Your task to perform on an android device: Search for hotels in Philadelphia Image 0: 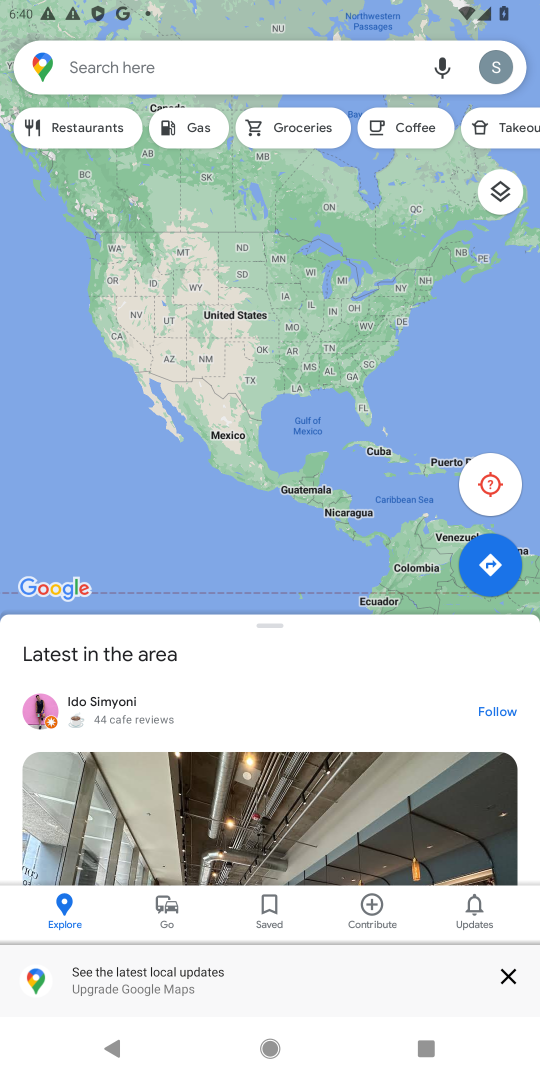
Step 0: press home button
Your task to perform on an android device: Search for hotels in Philadelphia Image 1: 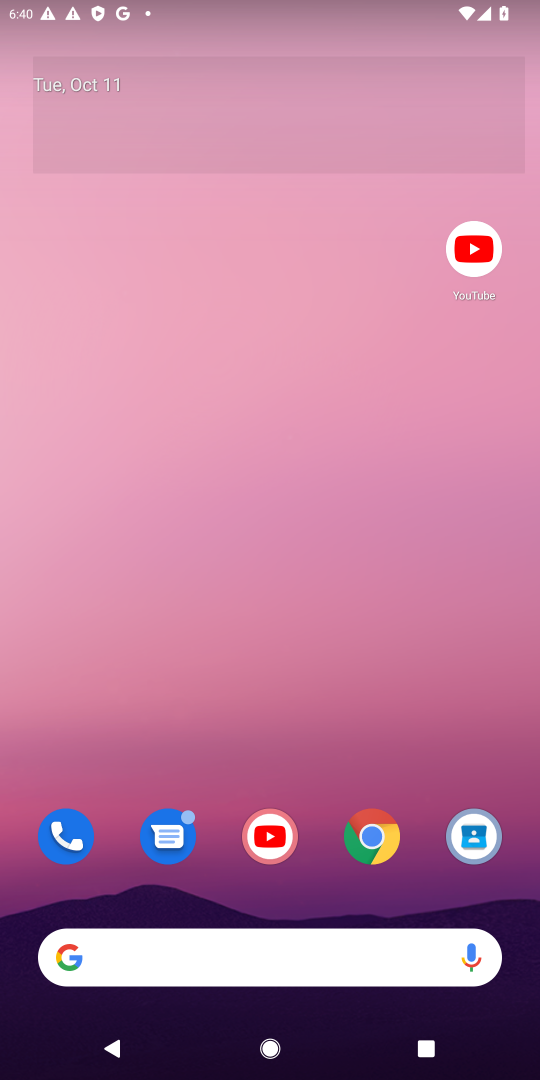
Step 1: click (367, 832)
Your task to perform on an android device: Search for hotels in Philadelphia Image 2: 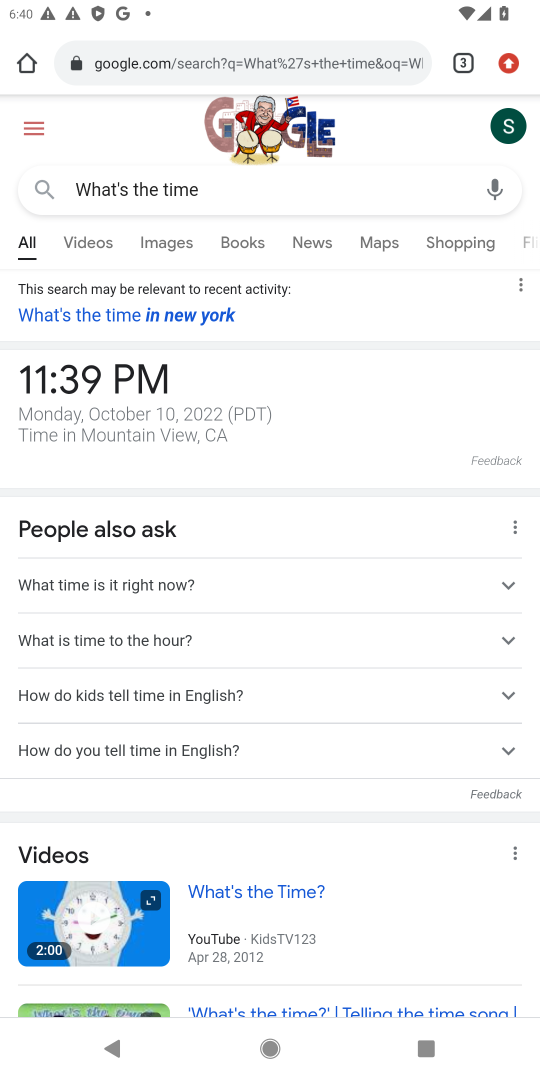
Step 2: click (256, 68)
Your task to perform on an android device: Search for hotels in Philadelphia Image 3: 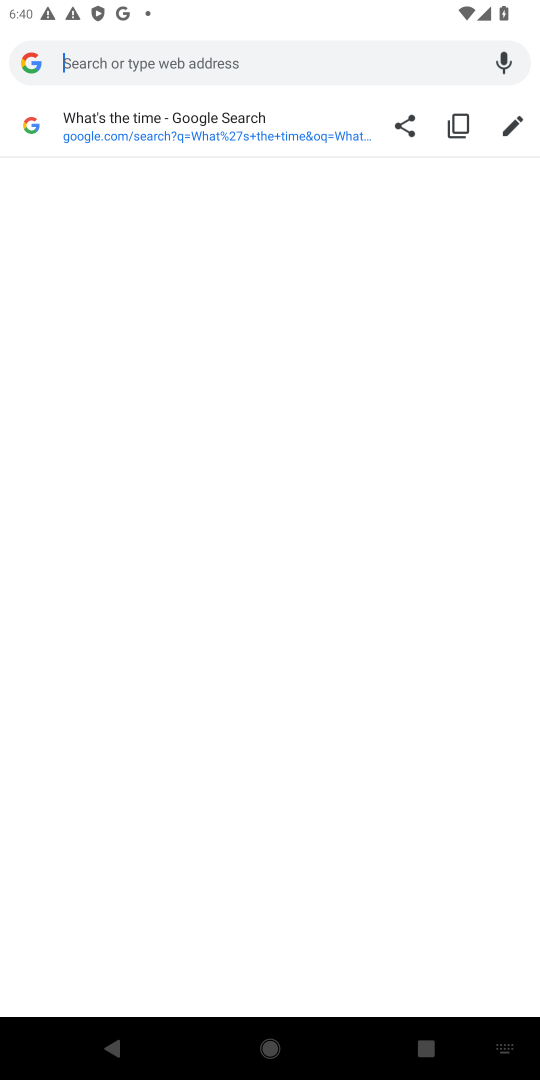
Step 3: type " hotels in Philadelphia"
Your task to perform on an android device: Search for hotels in Philadelphia Image 4: 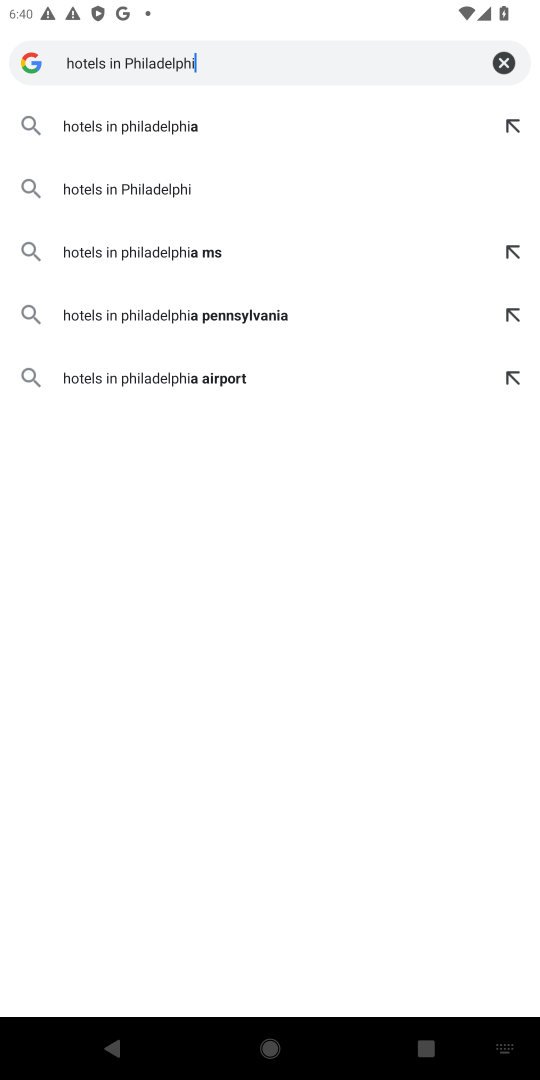
Step 4: press enter
Your task to perform on an android device: Search for hotels in Philadelphia Image 5: 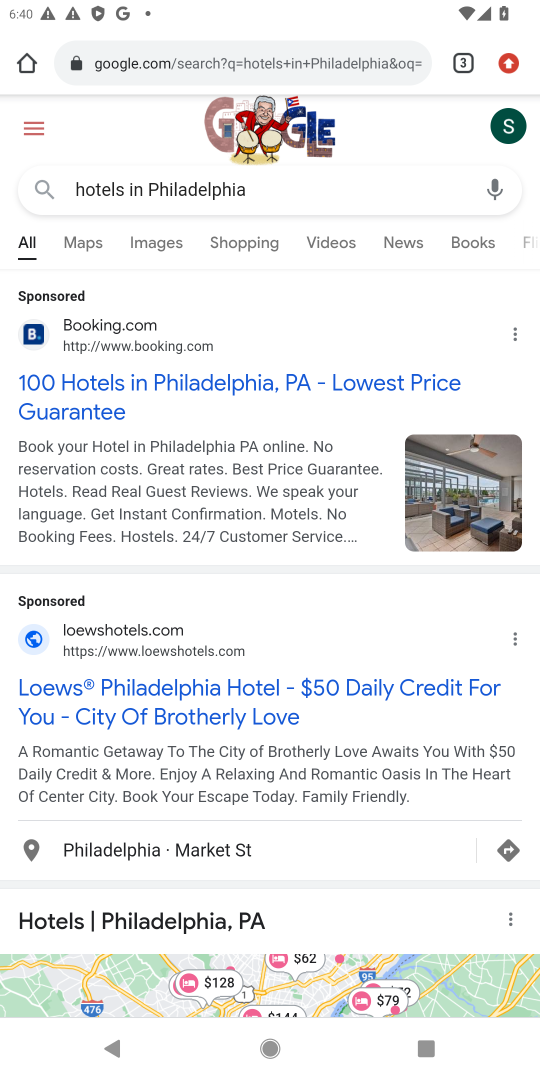
Step 5: drag from (220, 802) to (430, 123)
Your task to perform on an android device: Search for hotels in Philadelphia Image 6: 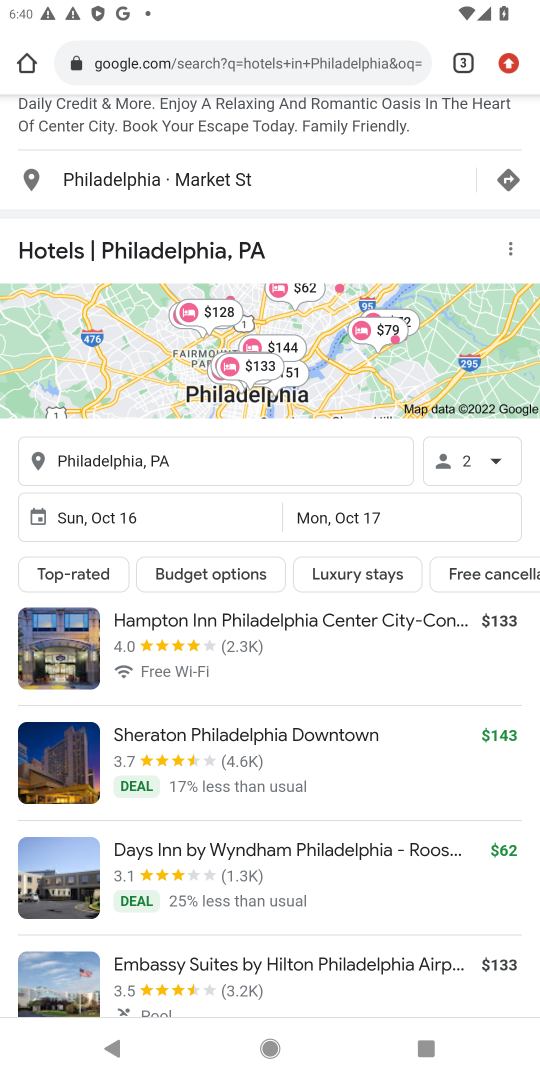
Step 6: drag from (266, 833) to (388, 92)
Your task to perform on an android device: Search for hotels in Philadelphia Image 7: 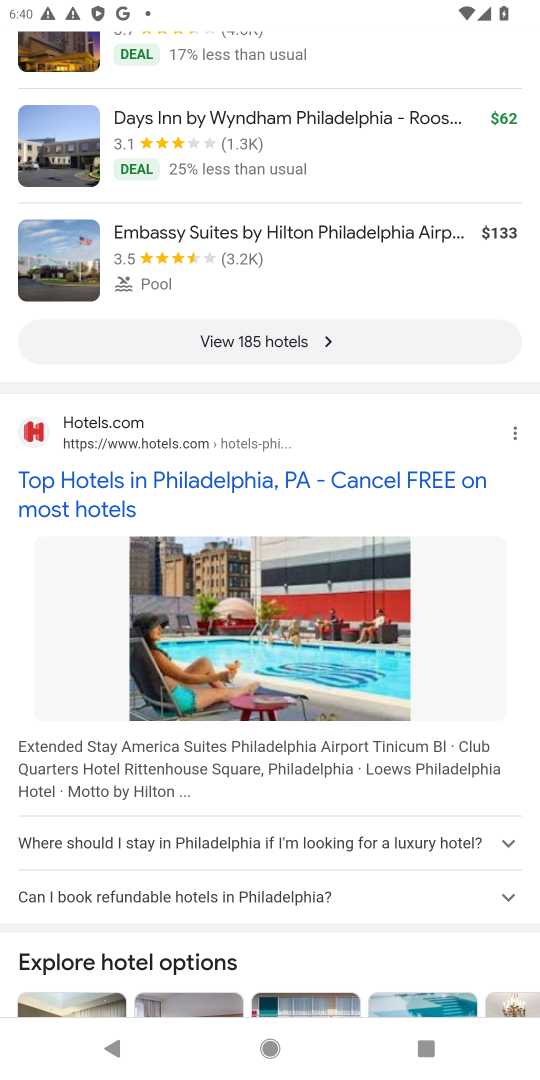
Step 7: click (282, 336)
Your task to perform on an android device: Search for hotels in Philadelphia Image 8: 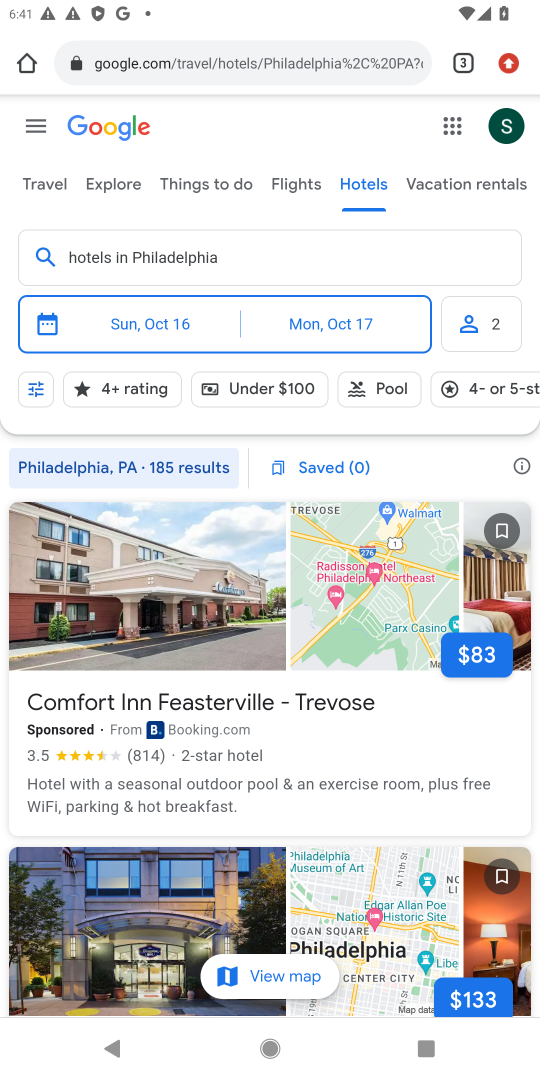
Step 8: task complete